Your task to perform on an android device: Go to sound settings Image 0: 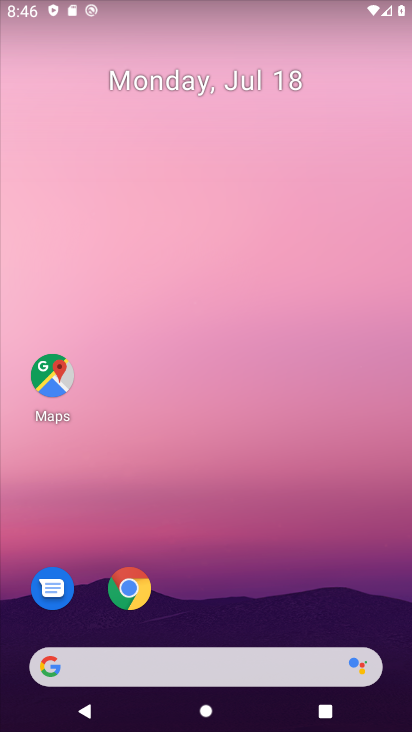
Step 0: press home button
Your task to perform on an android device: Go to sound settings Image 1: 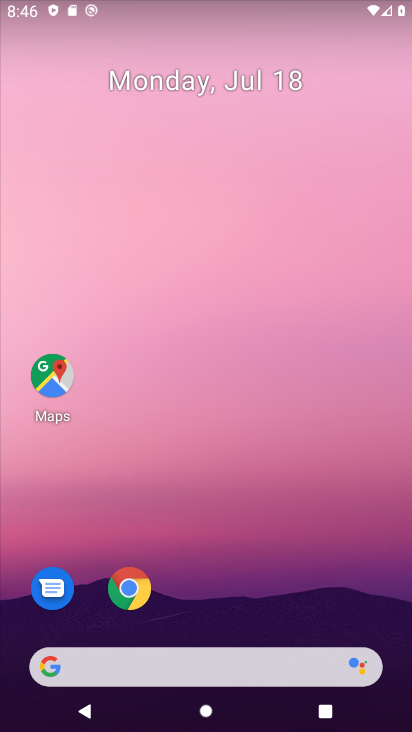
Step 1: drag from (193, 610) to (158, 103)
Your task to perform on an android device: Go to sound settings Image 2: 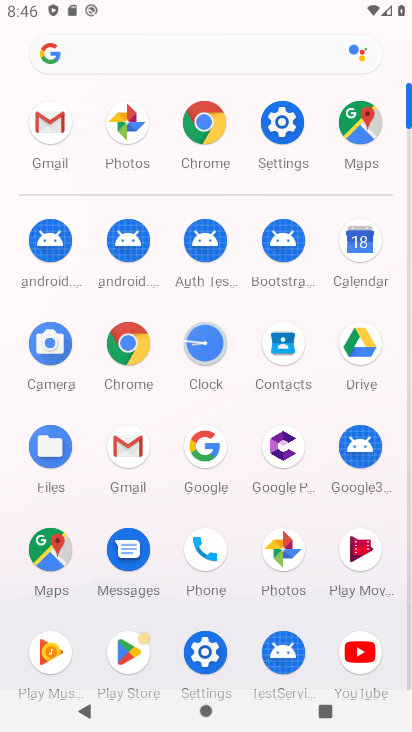
Step 2: click (206, 643)
Your task to perform on an android device: Go to sound settings Image 3: 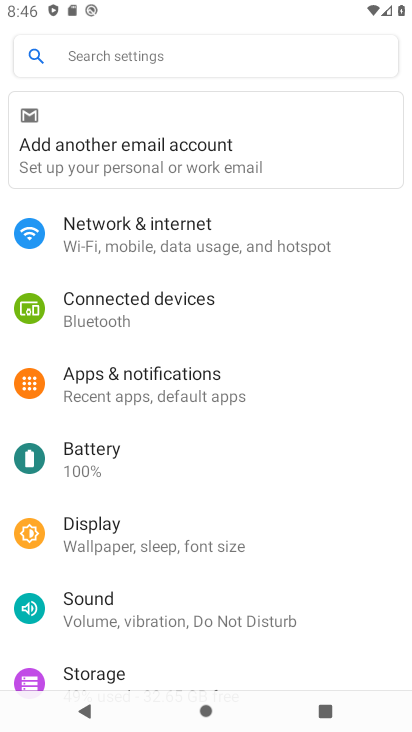
Step 3: click (99, 598)
Your task to perform on an android device: Go to sound settings Image 4: 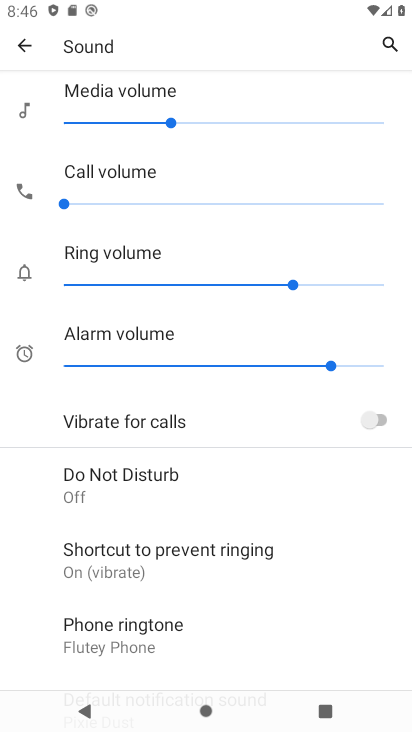
Step 4: task complete